Your task to perform on an android device: turn off priority inbox in the gmail app Image 0: 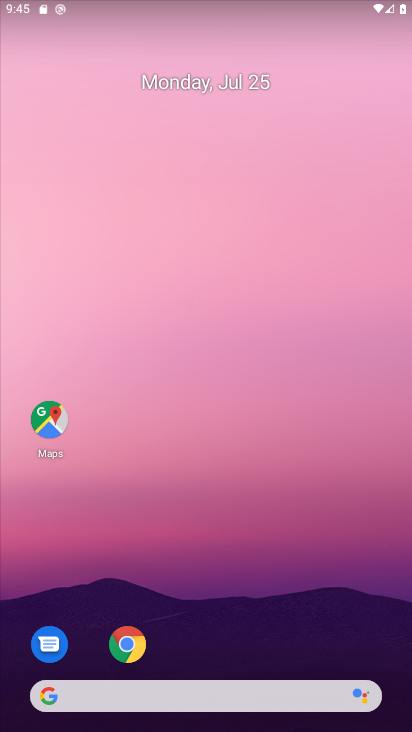
Step 0: drag from (397, 687) to (353, 89)
Your task to perform on an android device: turn off priority inbox in the gmail app Image 1: 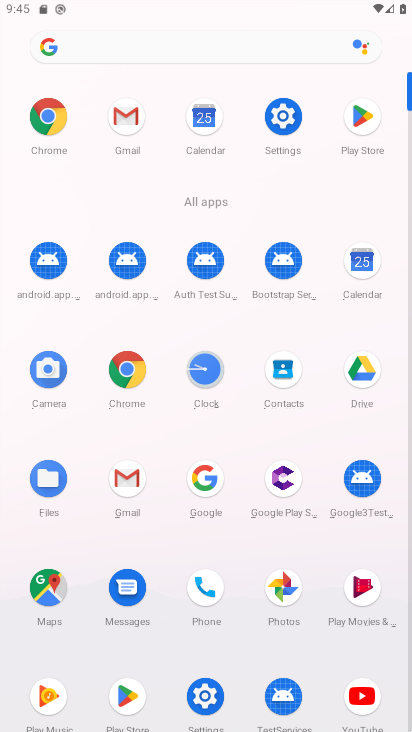
Step 1: click (122, 476)
Your task to perform on an android device: turn off priority inbox in the gmail app Image 2: 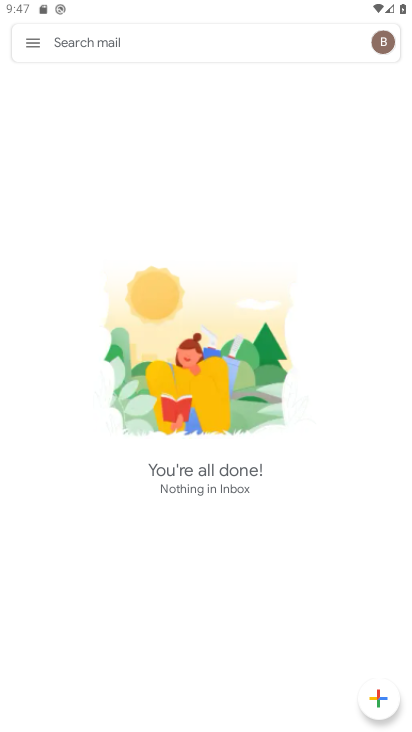
Step 2: click (40, 46)
Your task to perform on an android device: turn off priority inbox in the gmail app Image 3: 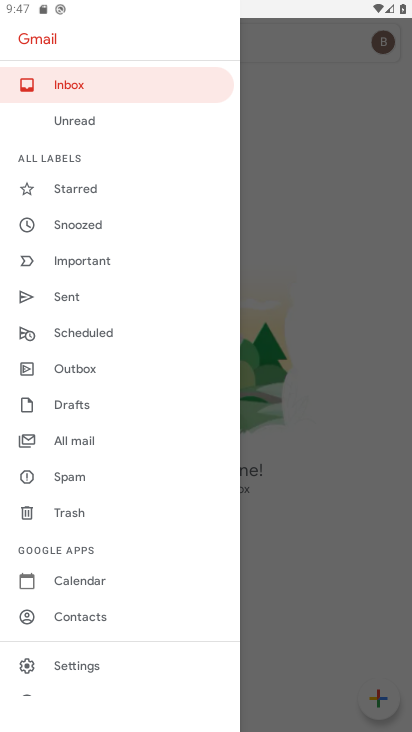
Step 3: click (76, 663)
Your task to perform on an android device: turn off priority inbox in the gmail app Image 4: 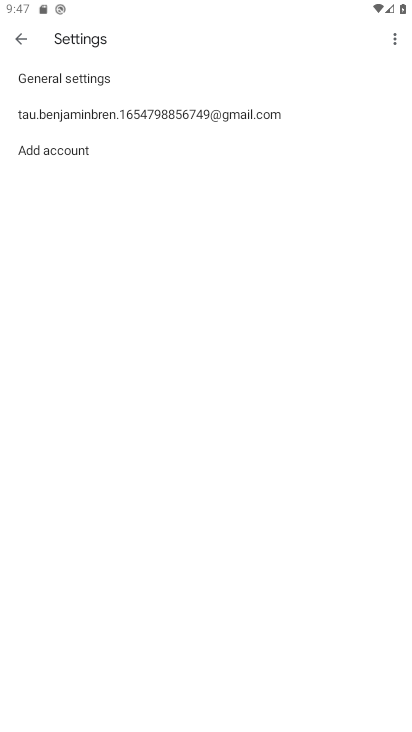
Step 4: click (50, 108)
Your task to perform on an android device: turn off priority inbox in the gmail app Image 5: 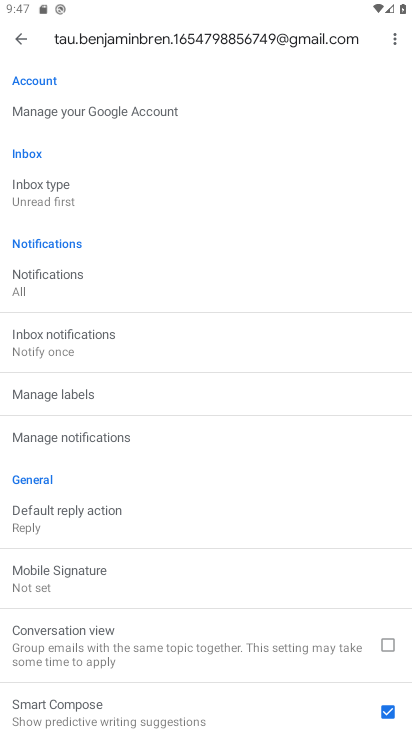
Step 5: click (50, 198)
Your task to perform on an android device: turn off priority inbox in the gmail app Image 6: 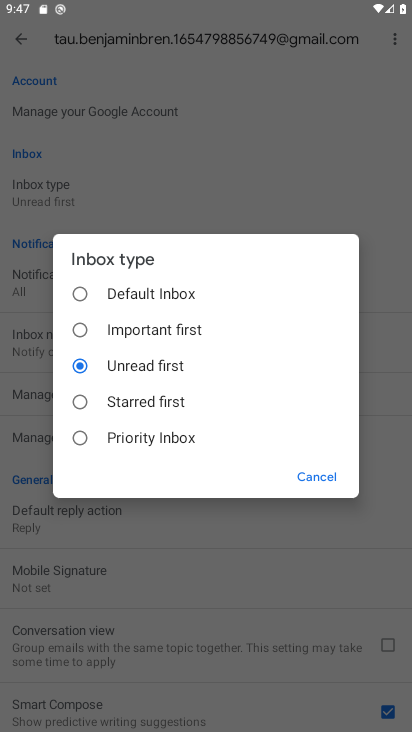
Step 6: task complete